Your task to perform on an android device: show emergency info Image 0: 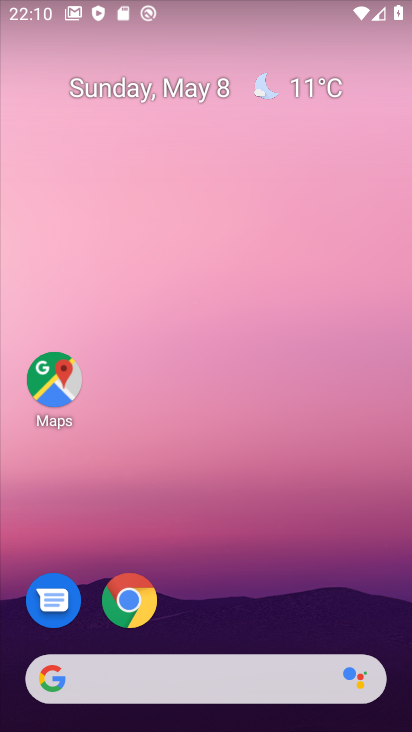
Step 0: drag from (255, 622) to (319, 45)
Your task to perform on an android device: show emergency info Image 1: 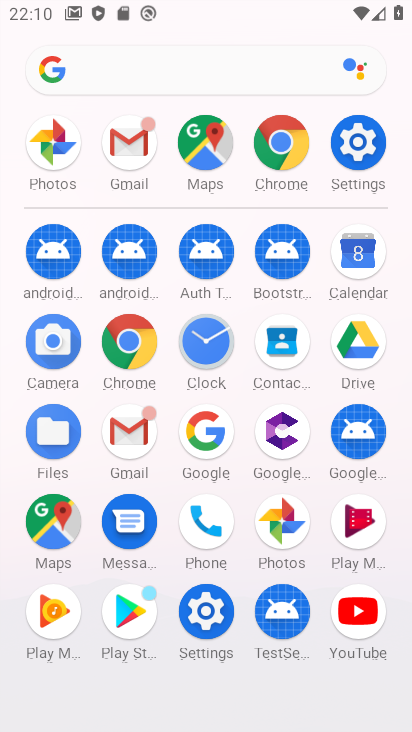
Step 1: click (215, 595)
Your task to perform on an android device: show emergency info Image 2: 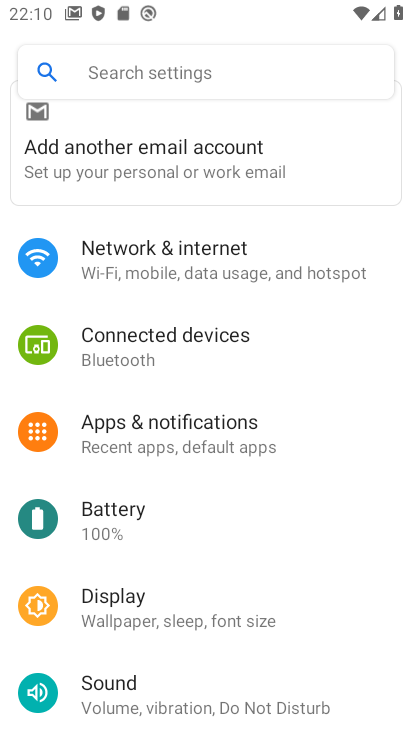
Step 2: drag from (121, 636) to (130, 193)
Your task to perform on an android device: show emergency info Image 3: 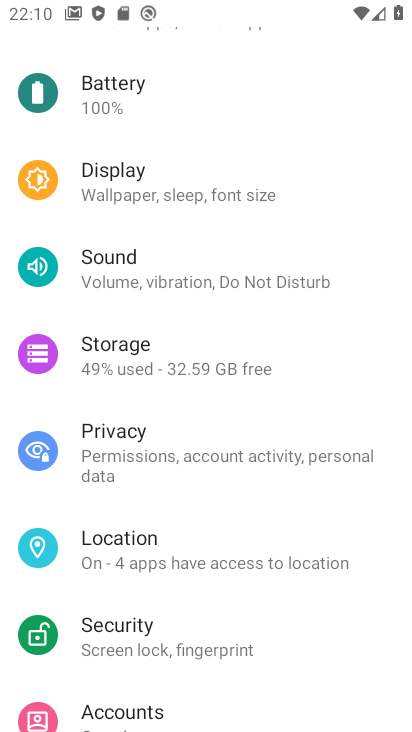
Step 3: drag from (54, 649) to (121, 188)
Your task to perform on an android device: show emergency info Image 4: 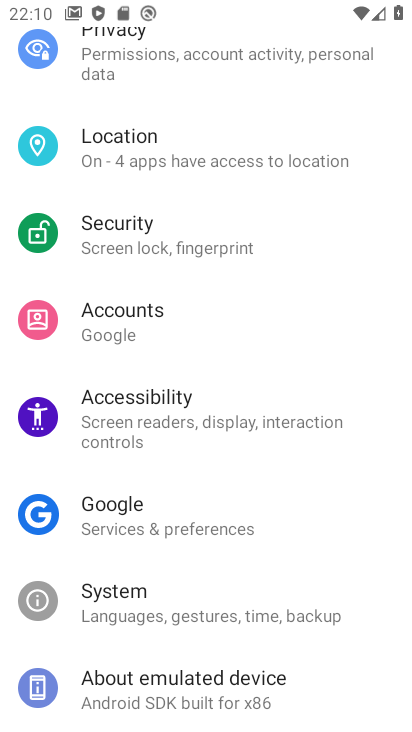
Step 4: drag from (74, 712) to (154, 238)
Your task to perform on an android device: show emergency info Image 5: 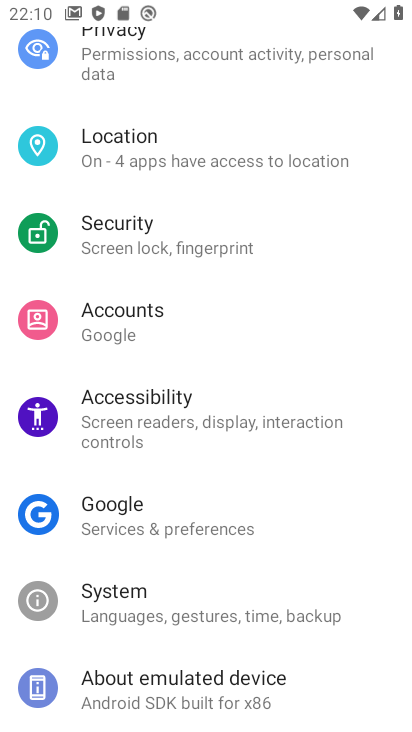
Step 5: click (150, 680)
Your task to perform on an android device: show emergency info Image 6: 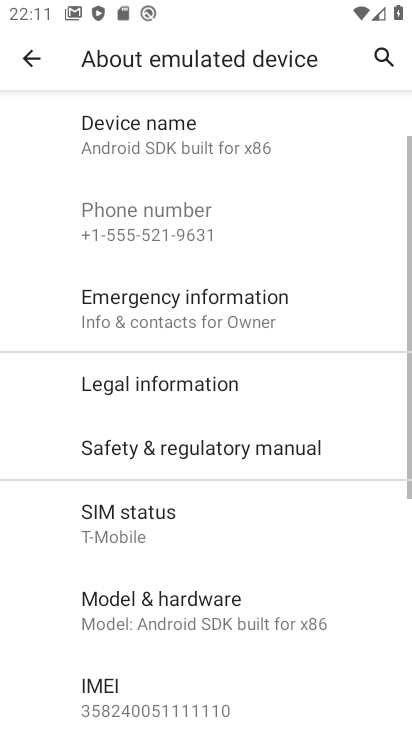
Step 6: click (185, 329)
Your task to perform on an android device: show emergency info Image 7: 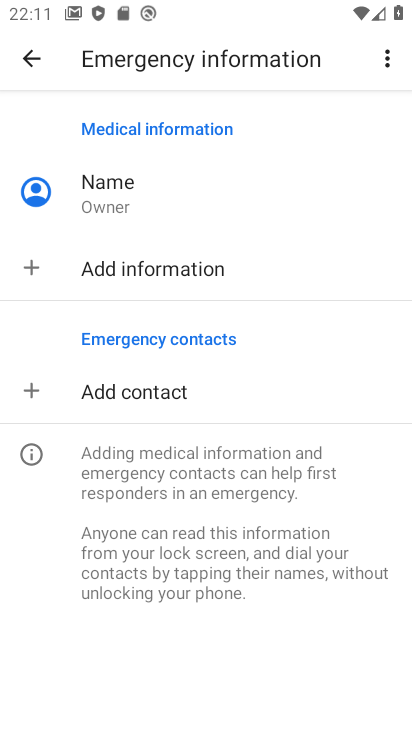
Step 7: task complete